Your task to perform on an android device: open app "Viber Messenger" (install if not already installed) and enter user name: "blameless@icloud.com" and password: "Yoknapatawpha" Image 0: 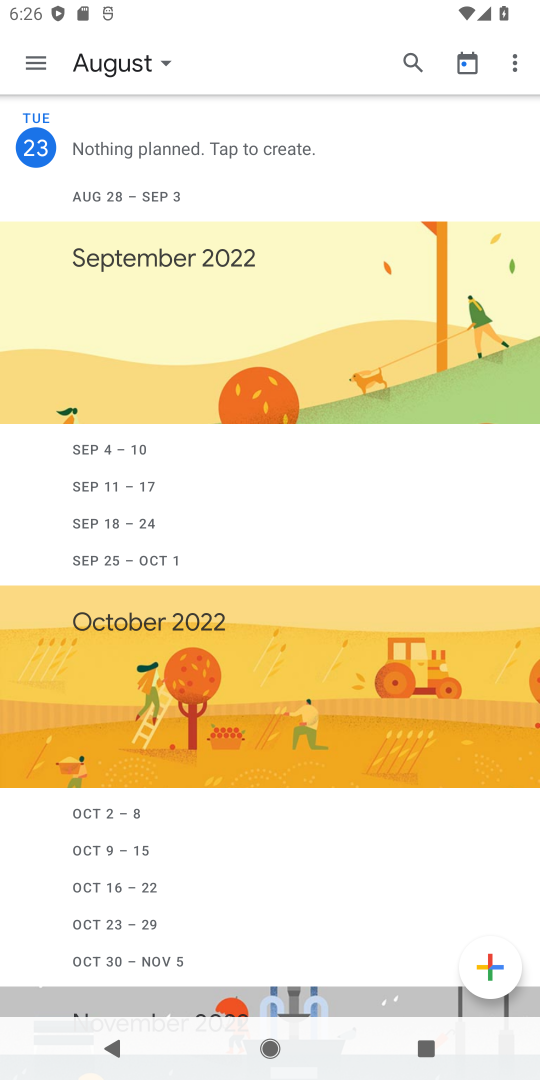
Step 0: press home button
Your task to perform on an android device: open app "Viber Messenger" (install if not already installed) and enter user name: "blameless@icloud.com" and password: "Yoknapatawpha" Image 1: 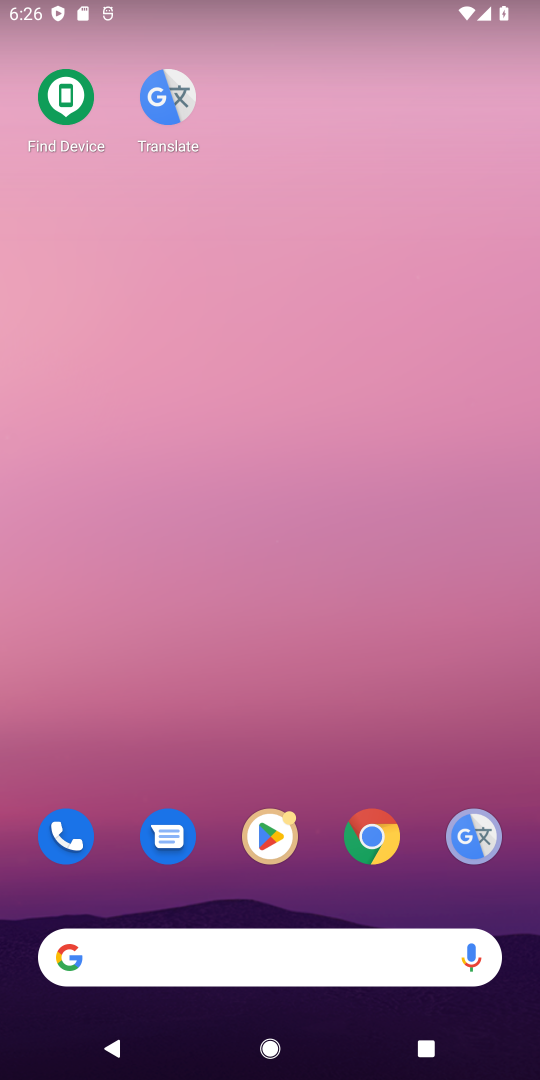
Step 1: press home button
Your task to perform on an android device: open app "Viber Messenger" (install if not already installed) and enter user name: "blameless@icloud.com" and password: "Yoknapatawpha" Image 2: 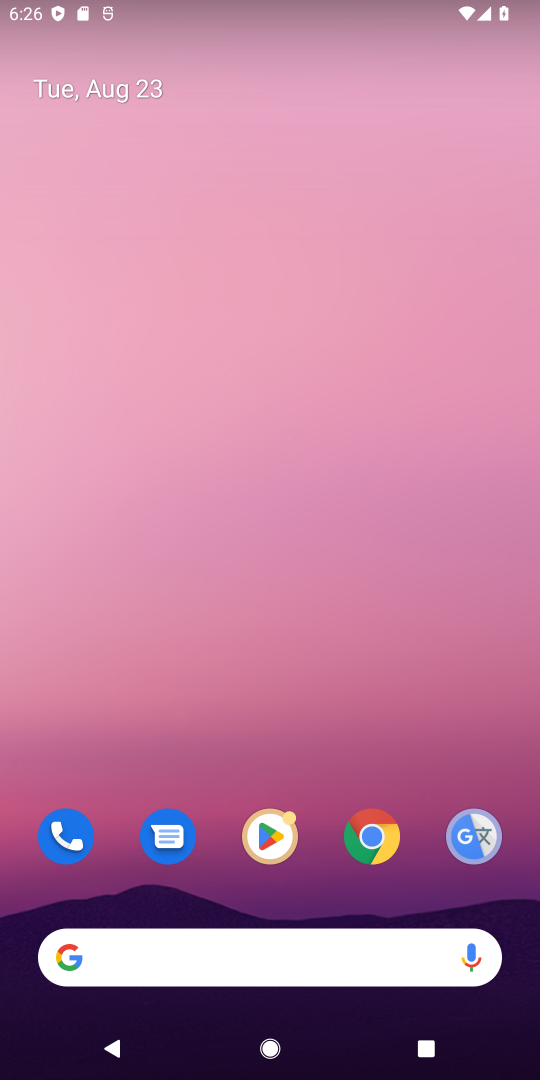
Step 2: click (260, 836)
Your task to perform on an android device: open app "Viber Messenger" (install if not already installed) and enter user name: "blameless@icloud.com" and password: "Yoknapatawpha" Image 3: 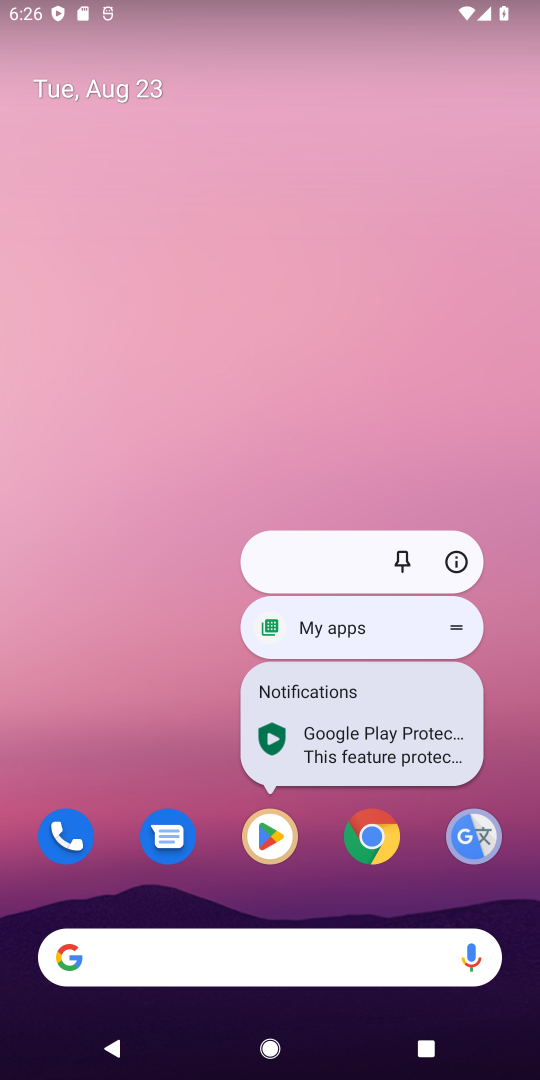
Step 3: click (256, 840)
Your task to perform on an android device: open app "Viber Messenger" (install if not already installed) and enter user name: "blameless@icloud.com" and password: "Yoknapatawpha" Image 4: 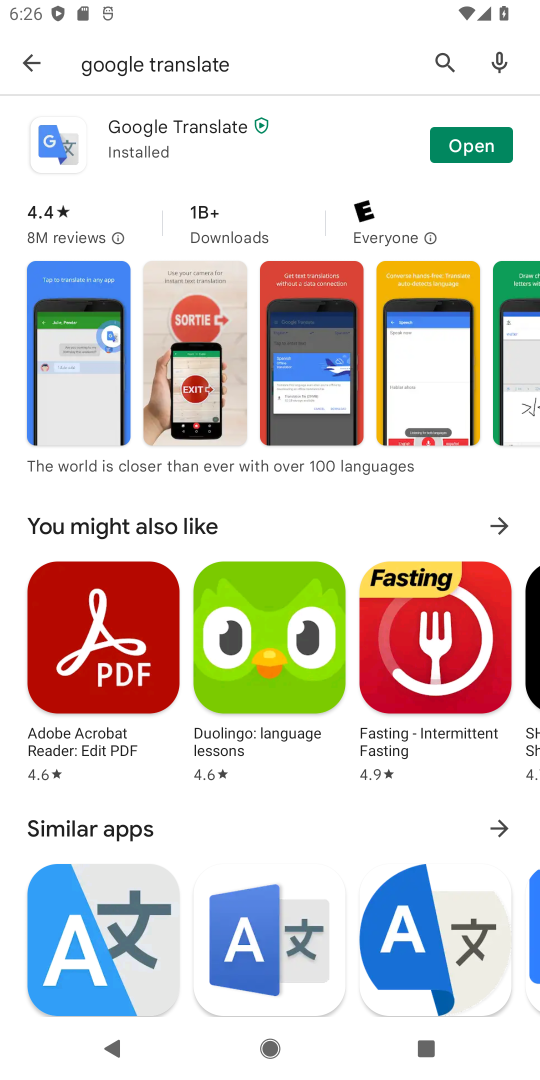
Step 4: click (448, 55)
Your task to perform on an android device: open app "Viber Messenger" (install if not already installed) and enter user name: "blameless@icloud.com" and password: "Yoknapatawpha" Image 5: 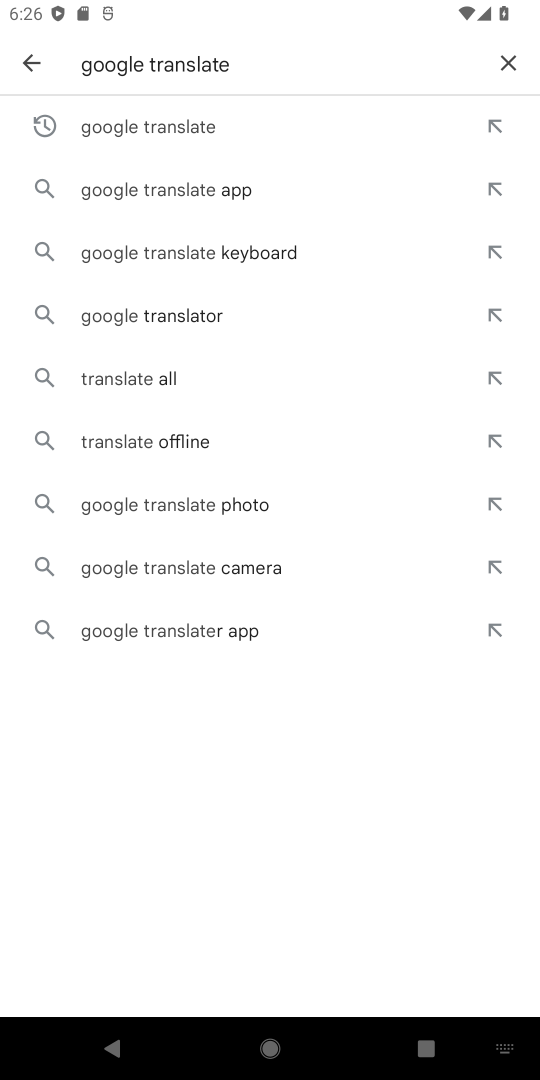
Step 5: click (507, 64)
Your task to perform on an android device: open app "Viber Messenger" (install if not already installed) and enter user name: "blameless@icloud.com" and password: "Yoknapatawpha" Image 6: 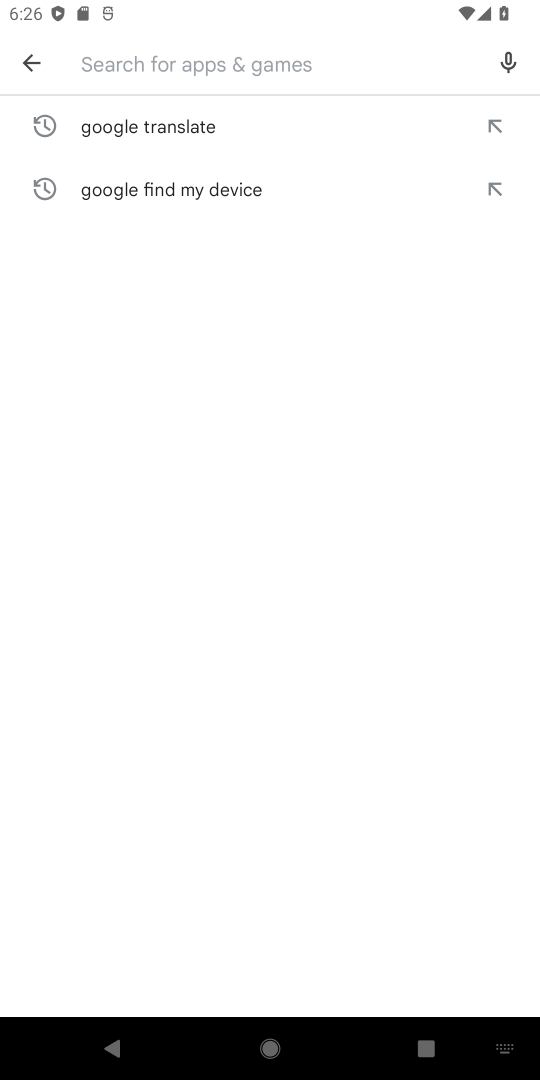
Step 6: type "Viber Messenger"
Your task to perform on an android device: open app "Viber Messenger" (install if not already installed) and enter user name: "blameless@icloud.com" and password: "Yoknapatawpha" Image 7: 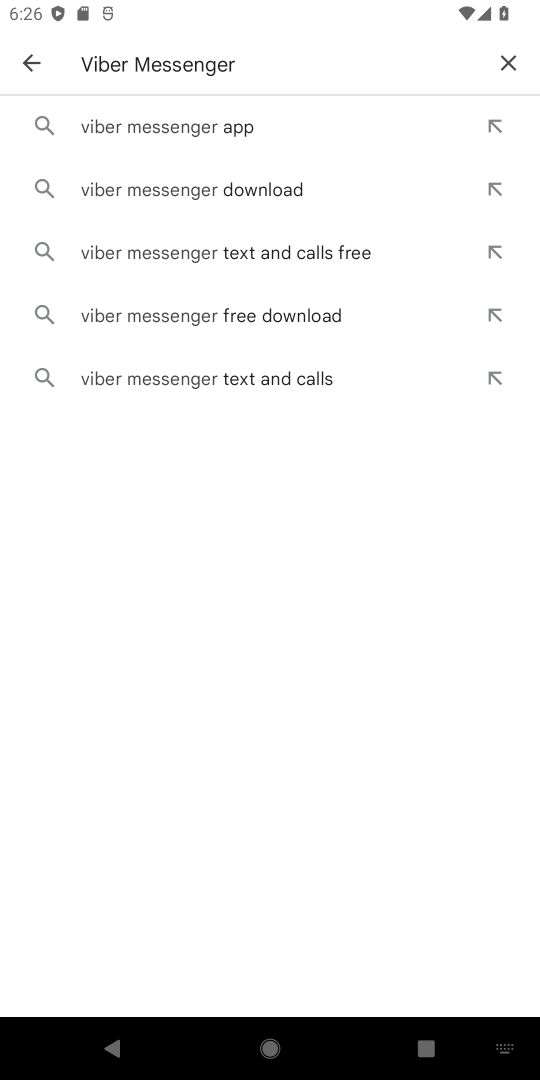
Step 7: click (214, 124)
Your task to perform on an android device: open app "Viber Messenger" (install if not already installed) and enter user name: "blameless@icloud.com" and password: "Yoknapatawpha" Image 8: 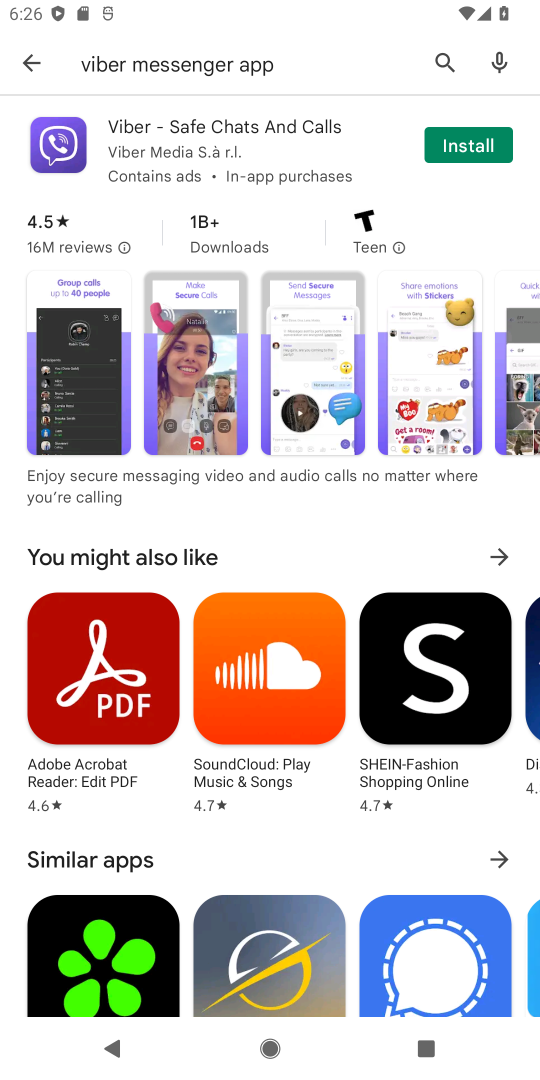
Step 8: click (488, 147)
Your task to perform on an android device: open app "Viber Messenger" (install if not already installed) and enter user name: "blameless@icloud.com" and password: "Yoknapatawpha" Image 9: 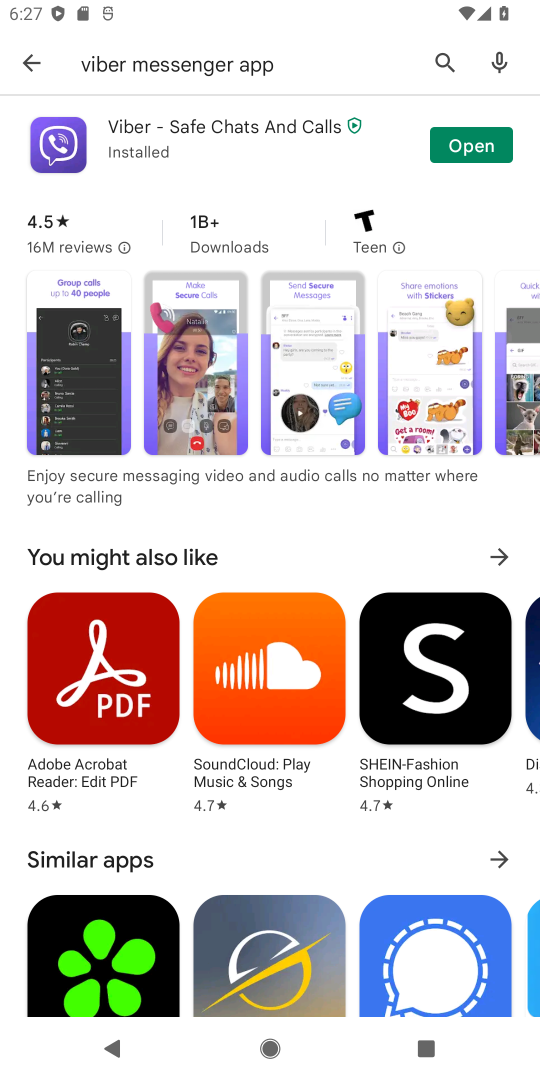
Step 9: click (484, 147)
Your task to perform on an android device: open app "Viber Messenger" (install if not already installed) and enter user name: "blameless@icloud.com" and password: "Yoknapatawpha" Image 10: 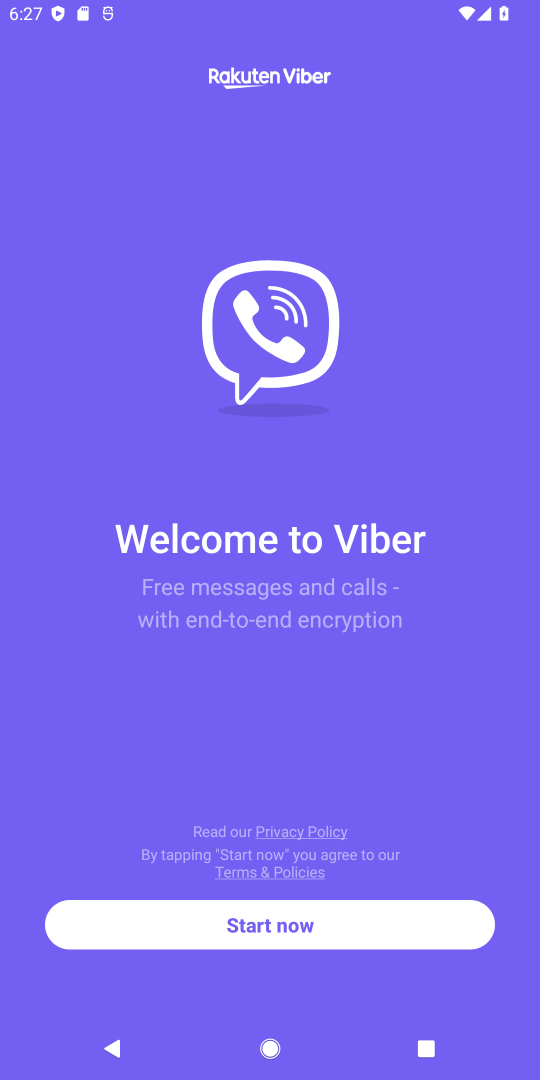
Step 10: click (297, 925)
Your task to perform on an android device: open app "Viber Messenger" (install if not already installed) and enter user name: "blameless@icloud.com" and password: "Yoknapatawpha" Image 11: 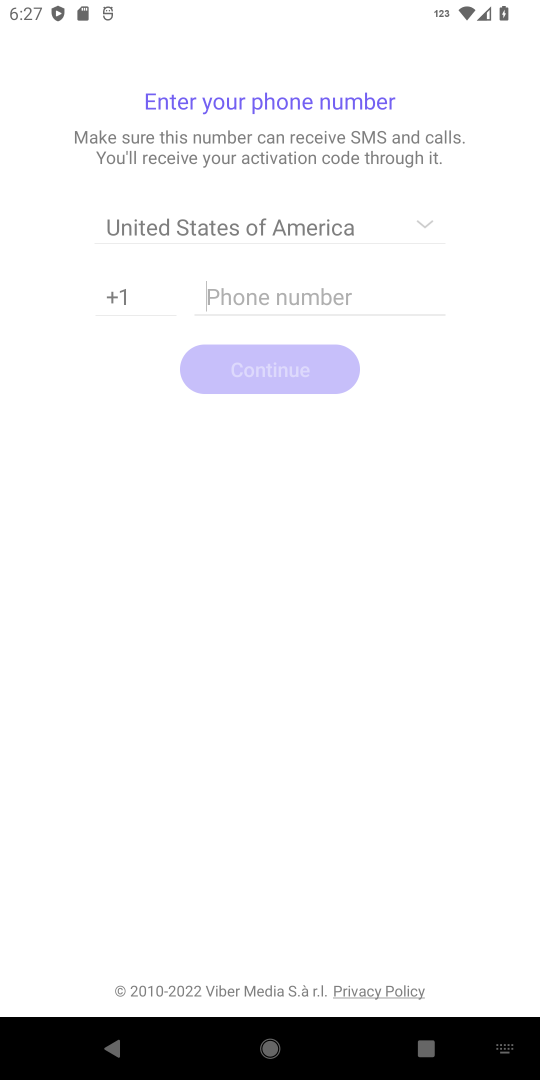
Step 11: task complete